Your task to perform on an android device: clear history in the chrome app Image 0: 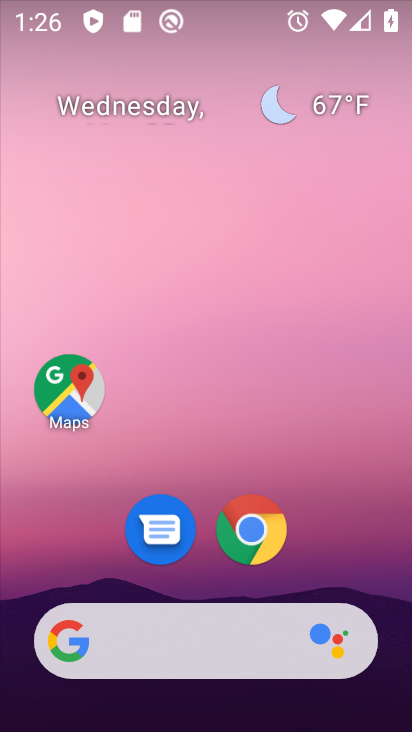
Step 0: click (251, 528)
Your task to perform on an android device: clear history in the chrome app Image 1: 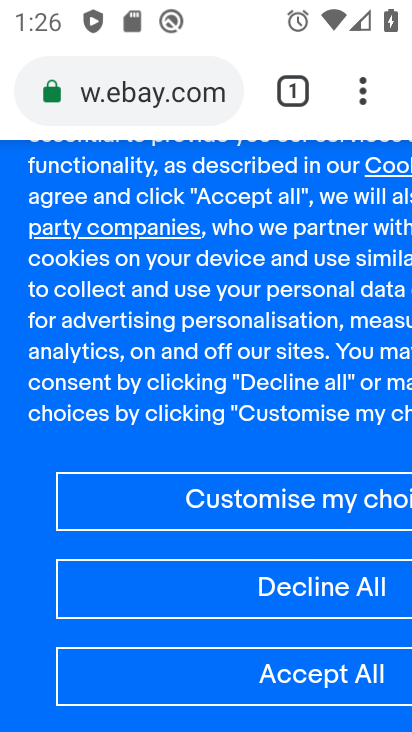
Step 1: click (364, 88)
Your task to perform on an android device: clear history in the chrome app Image 2: 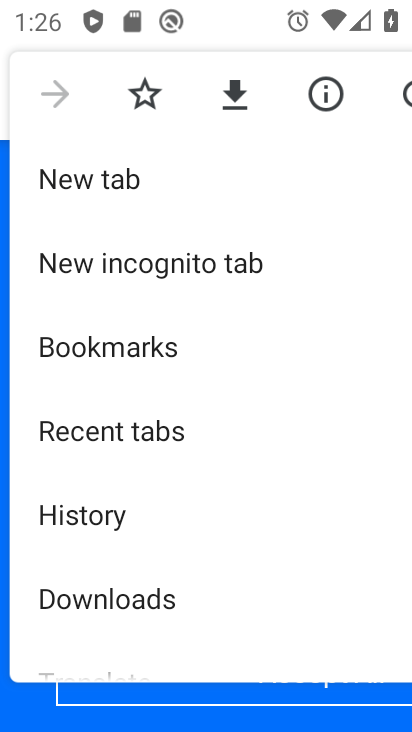
Step 2: click (80, 514)
Your task to perform on an android device: clear history in the chrome app Image 3: 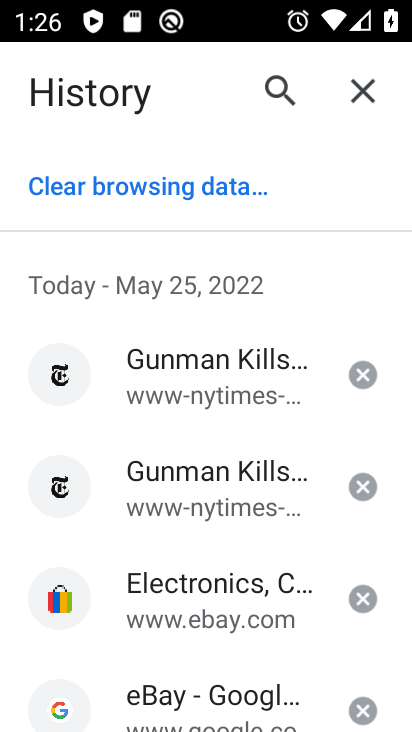
Step 3: click (180, 190)
Your task to perform on an android device: clear history in the chrome app Image 4: 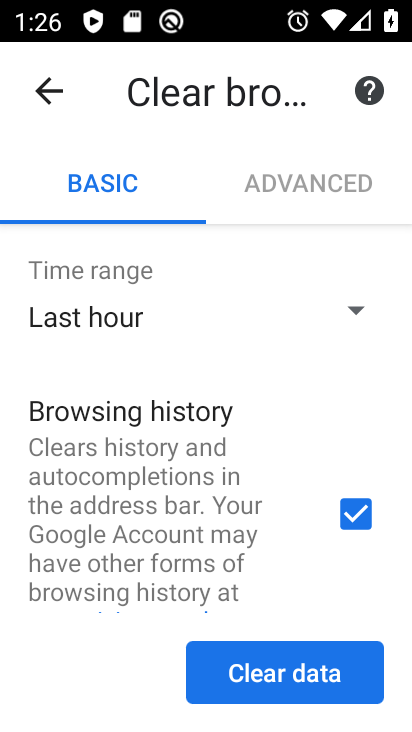
Step 4: click (266, 669)
Your task to perform on an android device: clear history in the chrome app Image 5: 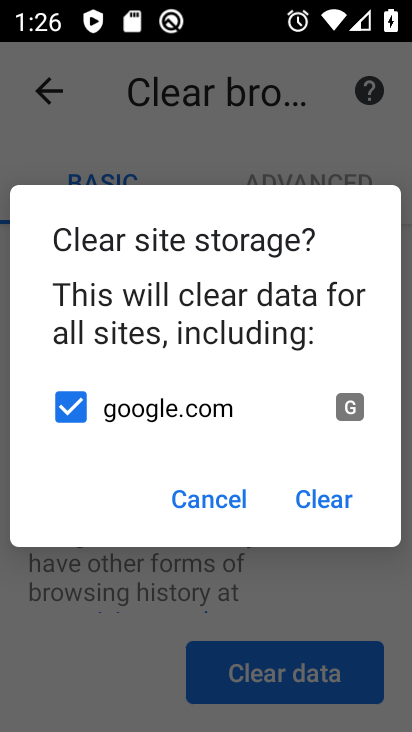
Step 5: click (326, 500)
Your task to perform on an android device: clear history in the chrome app Image 6: 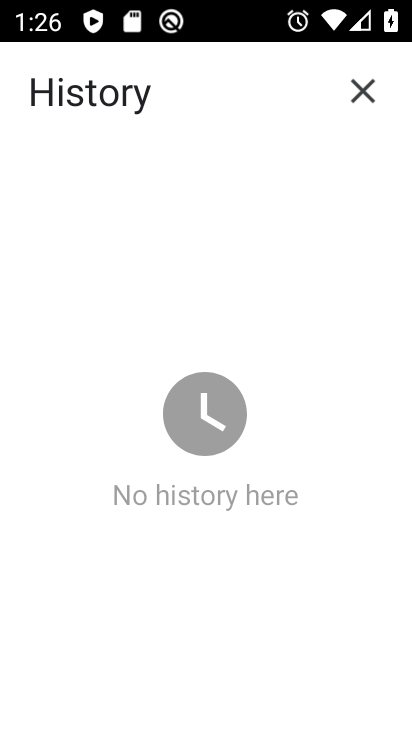
Step 6: task complete